Your task to perform on an android device: Open wifi settings Image 0: 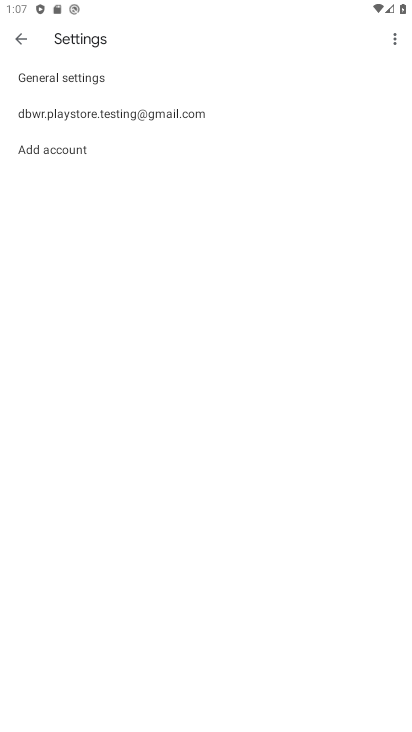
Step 0: press home button
Your task to perform on an android device: Open wifi settings Image 1: 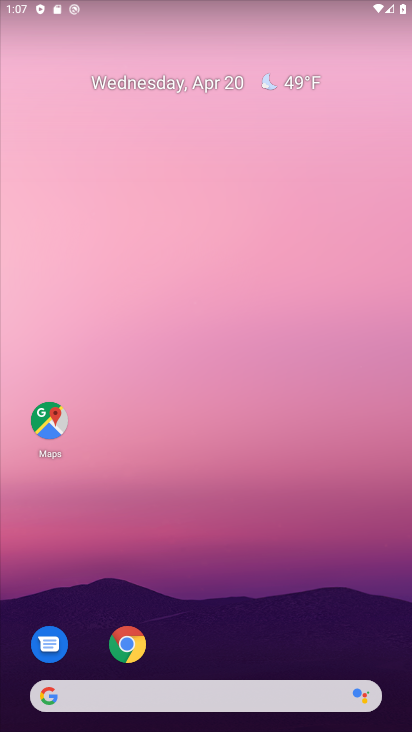
Step 1: drag from (286, 564) to (327, 105)
Your task to perform on an android device: Open wifi settings Image 2: 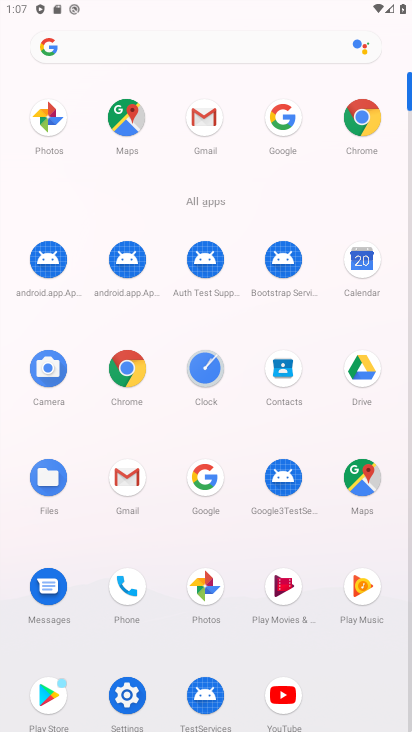
Step 2: click (130, 697)
Your task to perform on an android device: Open wifi settings Image 3: 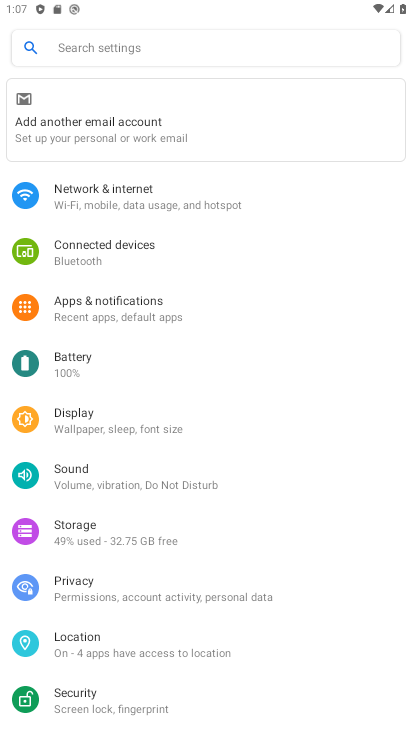
Step 3: click (144, 205)
Your task to perform on an android device: Open wifi settings Image 4: 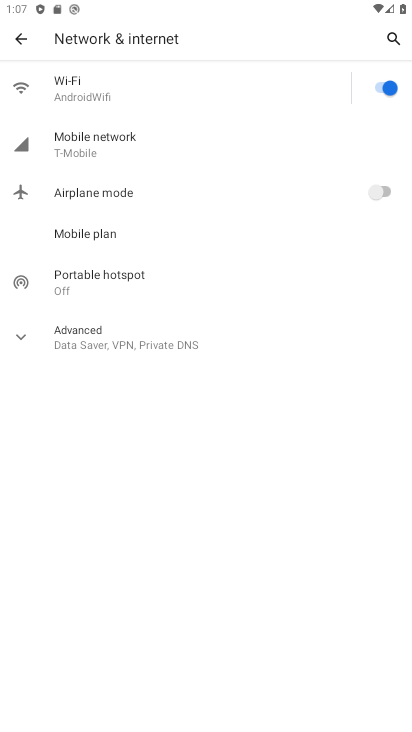
Step 4: click (132, 96)
Your task to perform on an android device: Open wifi settings Image 5: 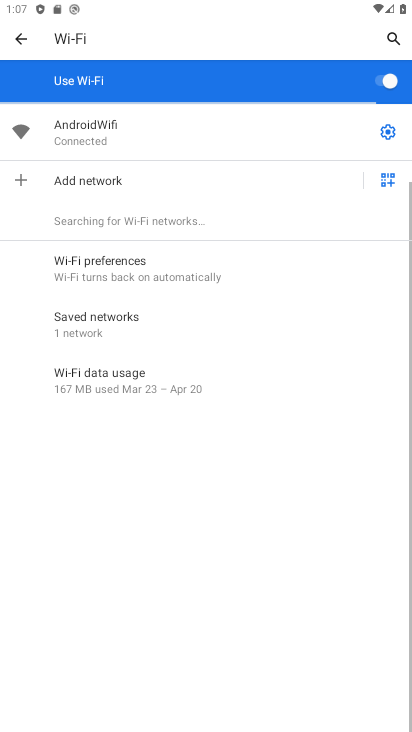
Step 5: task complete